Your task to perform on an android device: turn notification dots off Image 0: 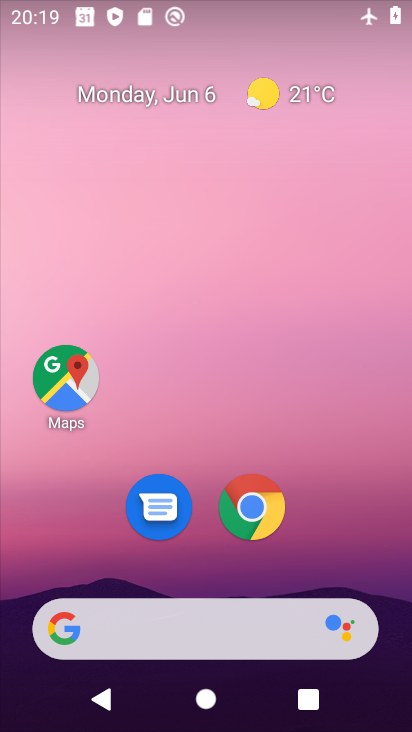
Step 0: drag from (186, 573) to (209, 137)
Your task to perform on an android device: turn notification dots off Image 1: 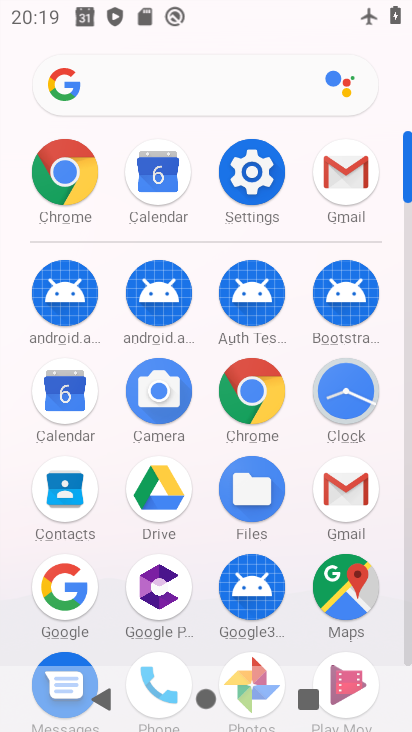
Step 1: click (233, 165)
Your task to perform on an android device: turn notification dots off Image 2: 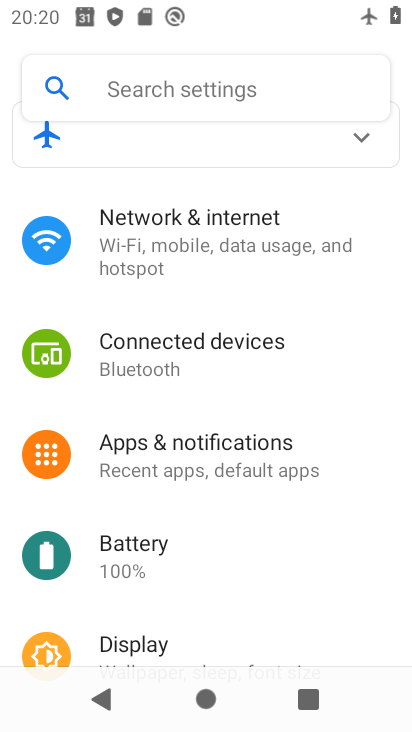
Step 2: drag from (185, 603) to (156, 320)
Your task to perform on an android device: turn notification dots off Image 3: 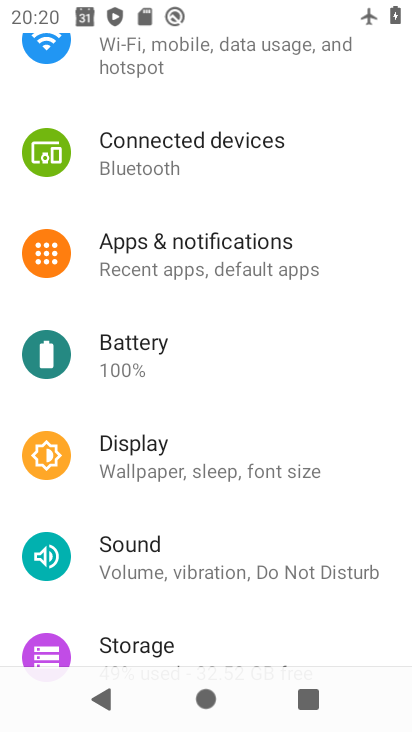
Step 3: drag from (180, 557) to (232, 182)
Your task to perform on an android device: turn notification dots off Image 4: 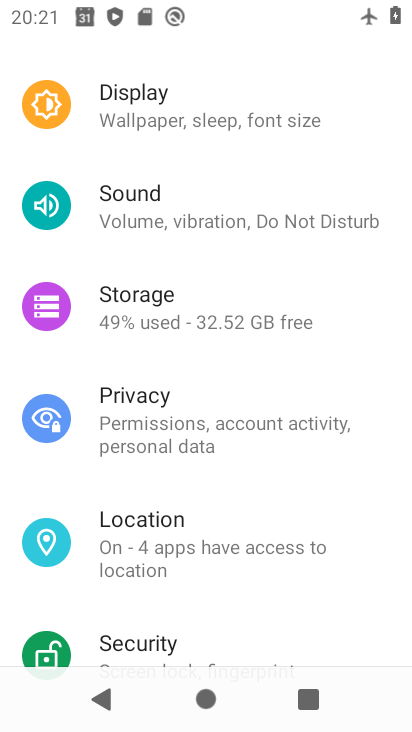
Step 4: drag from (182, 273) to (109, 628)
Your task to perform on an android device: turn notification dots off Image 5: 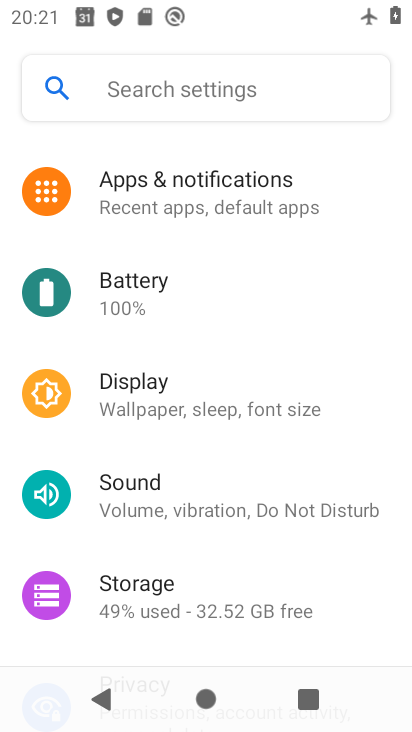
Step 5: click (186, 212)
Your task to perform on an android device: turn notification dots off Image 6: 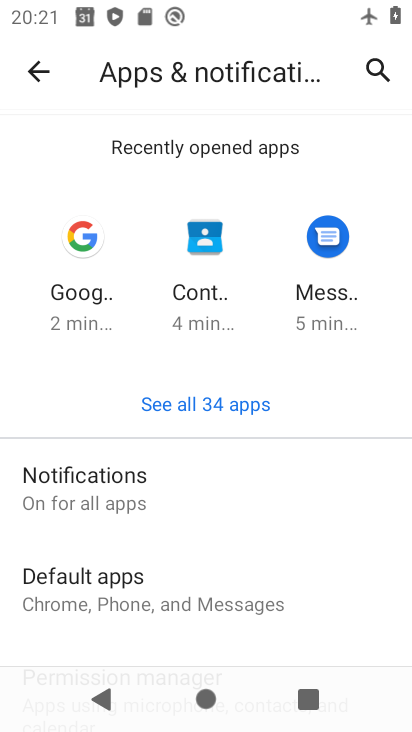
Step 6: drag from (191, 559) to (191, 294)
Your task to perform on an android device: turn notification dots off Image 7: 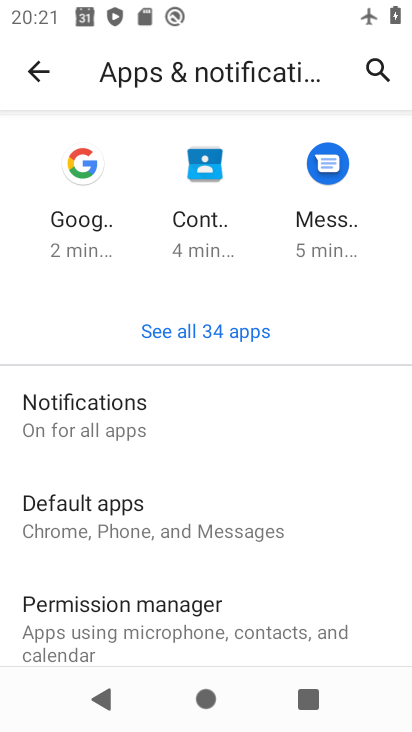
Step 7: drag from (148, 602) to (159, 315)
Your task to perform on an android device: turn notification dots off Image 8: 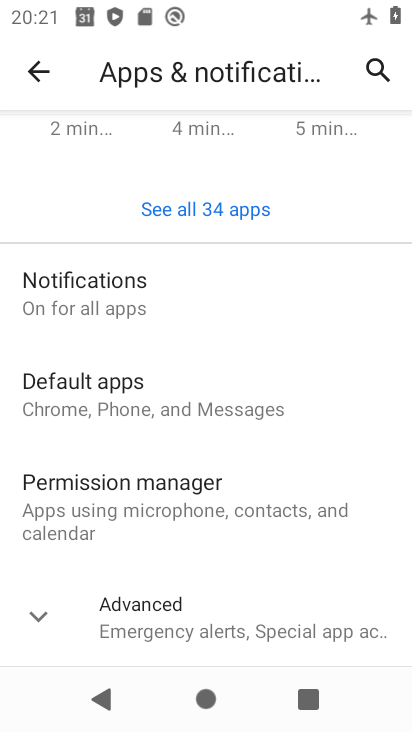
Step 8: click (159, 611)
Your task to perform on an android device: turn notification dots off Image 9: 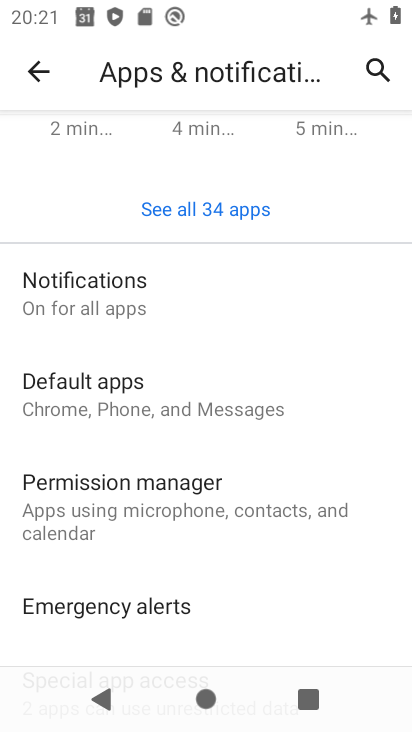
Step 9: drag from (180, 578) to (174, 400)
Your task to perform on an android device: turn notification dots off Image 10: 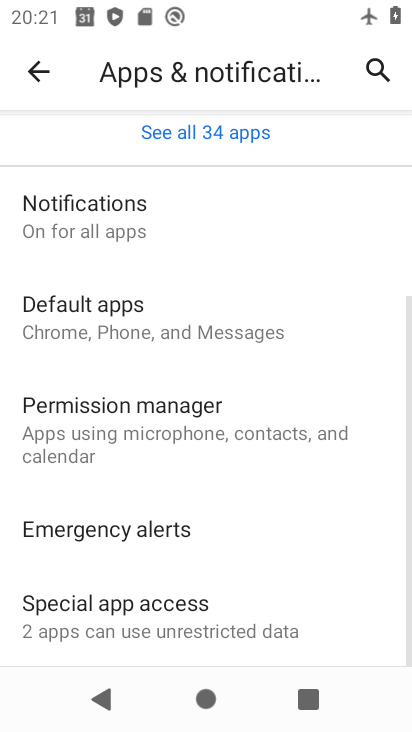
Step 10: drag from (262, 527) to (221, 209)
Your task to perform on an android device: turn notification dots off Image 11: 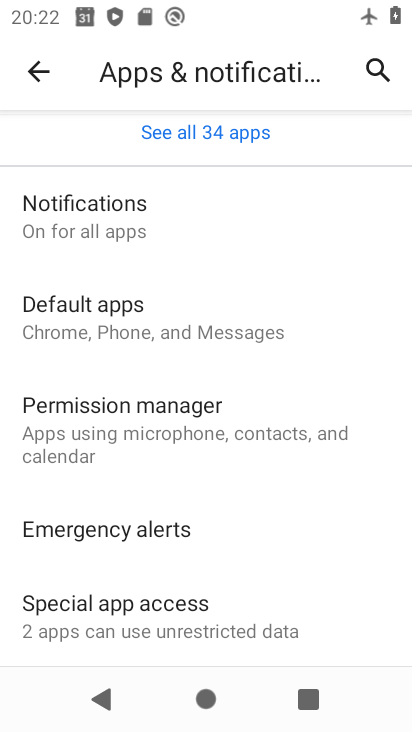
Step 11: click (96, 207)
Your task to perform on an android device: turn notification dots off Image 12: 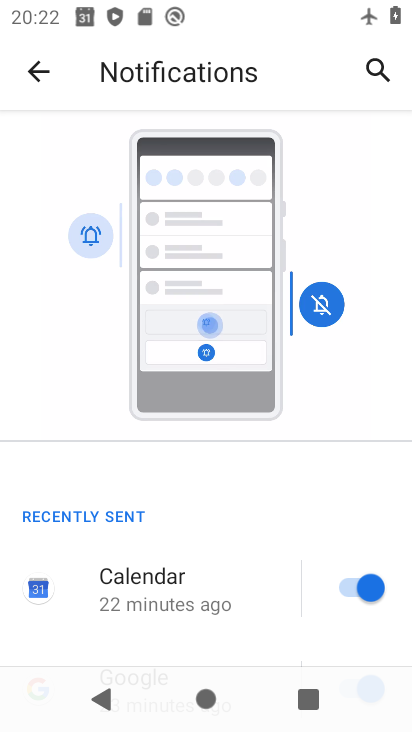
Step 12: drag from (184, 610) to (237, 219)
Your task to perform on an android device: turn notification dots off Image 13: 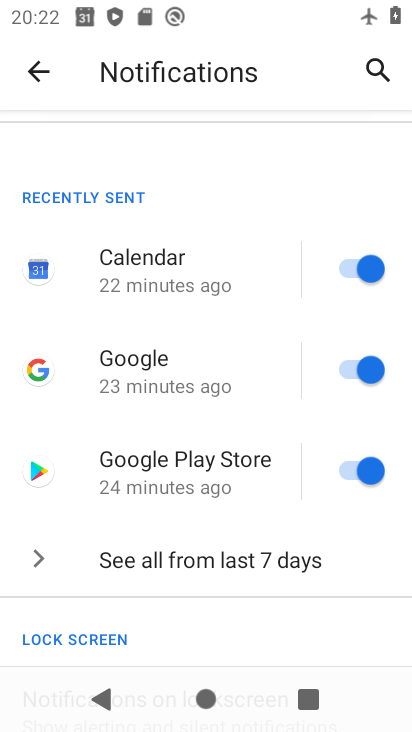
Step 13: drag from (177, 613) to (189, 290)
Your task to perform on an android device: turn notification dots off Image 14: 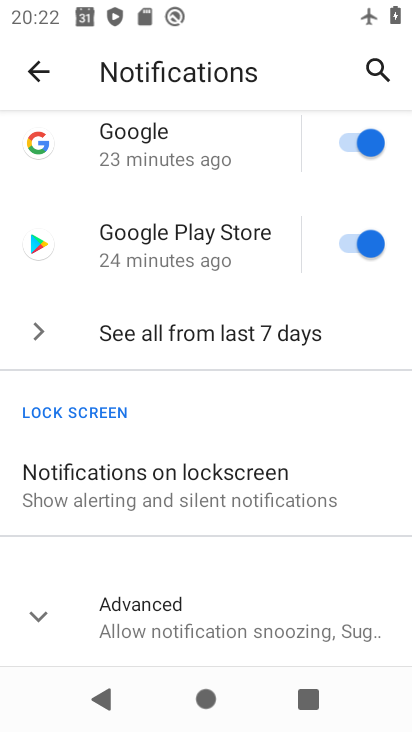
Step 14: click (149, 625)
Your task to perform on an android device: turn notification dots off Image 15: 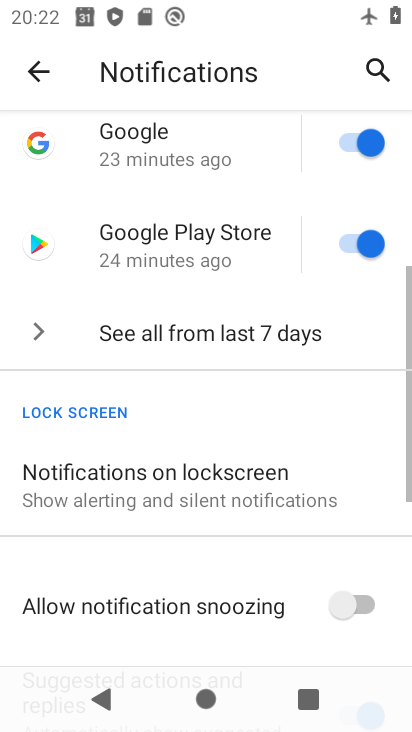
Step 15: task complete